Your task to perform on an android device: Search for vegetarian restaurants on Maps Image 0: 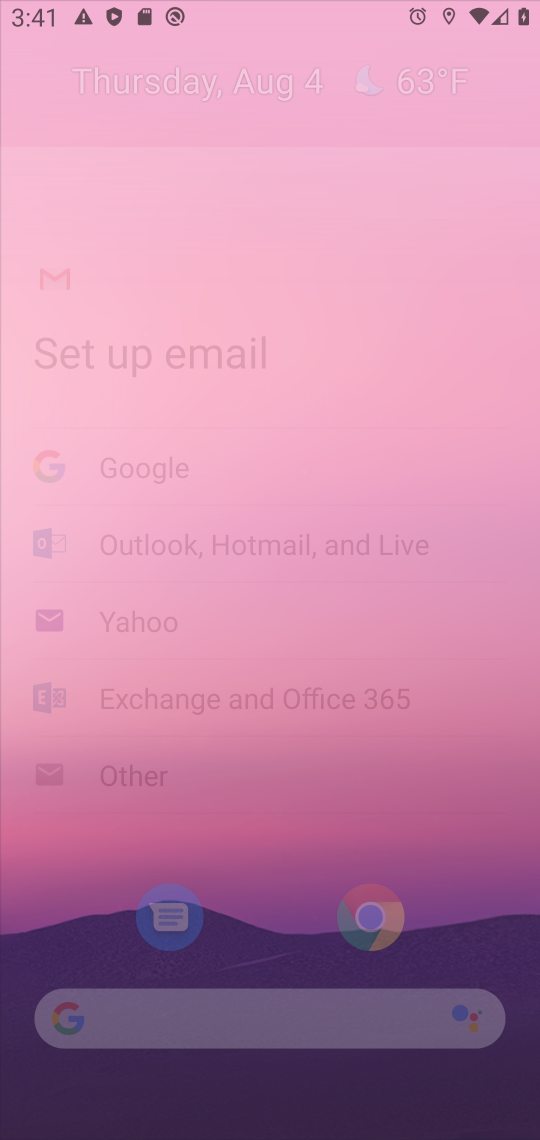
Step 0: press home button
Your task to perform on an android device: Search for vegetarian restaurants on Maps Image 1: 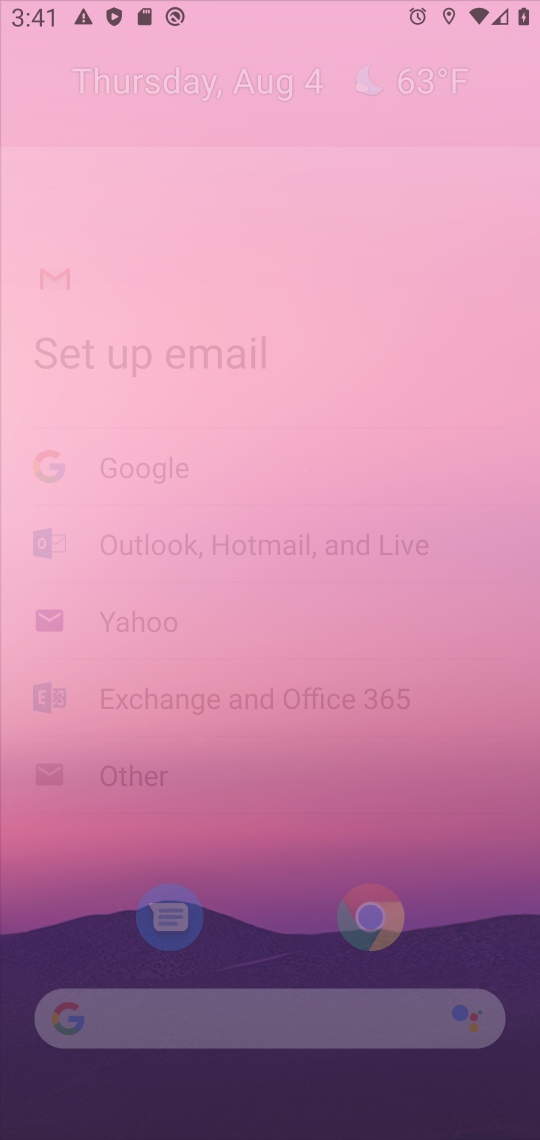
Step 1: click (284, 271)
Your task to perform on an android device: Search for vegetarian restaurants on Maps Image 2: 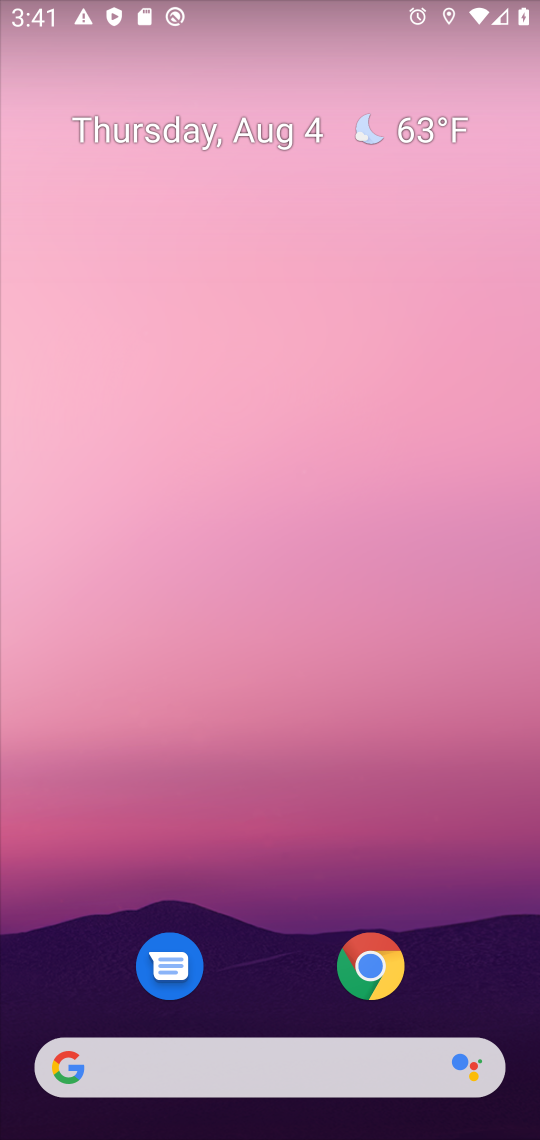
Step 2: drag from (258, 1010) to (336, 280)
Your task to perform on an android device: Search for vegetarian restaurants on Maps Image 3: 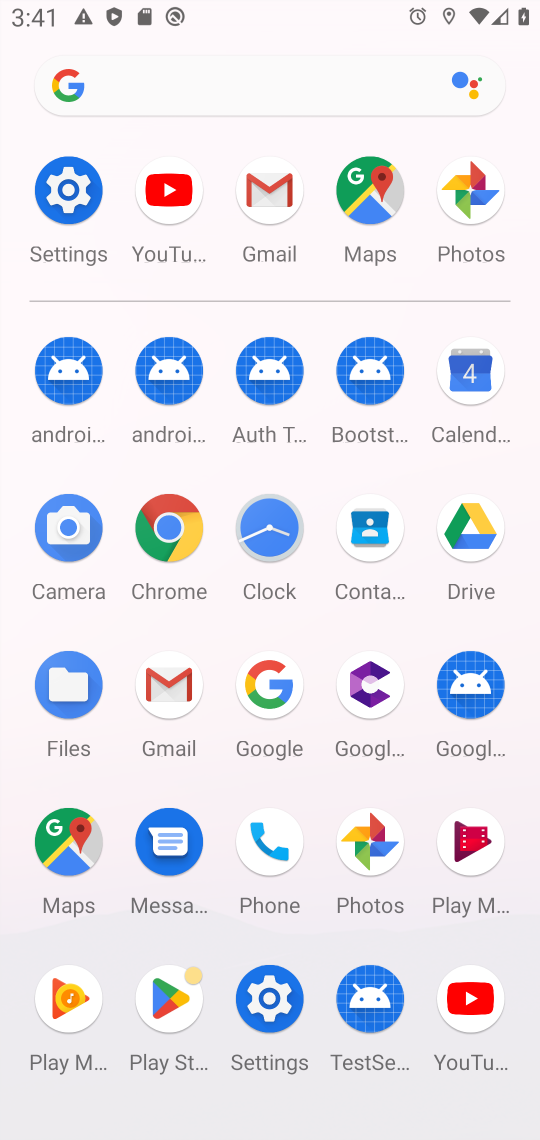
Step 3: click (355, 214)
Your task to perform on an android device: Search for vegetarian restaurants on Maps Image 4: 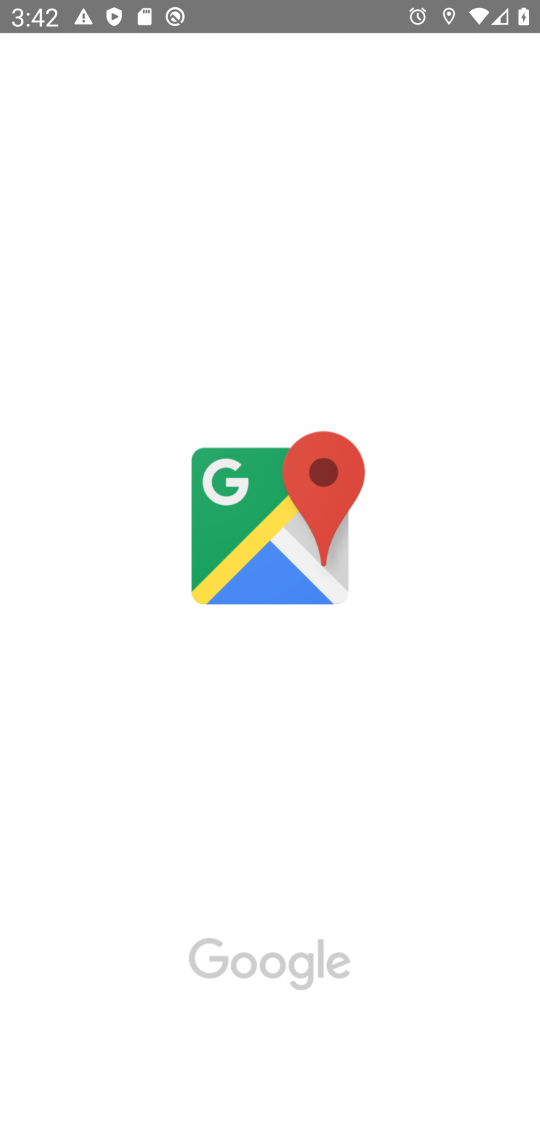
Step 4: task complete